Your task to perform on an android device: see tabs open on other devices in the chrome app Image 0: 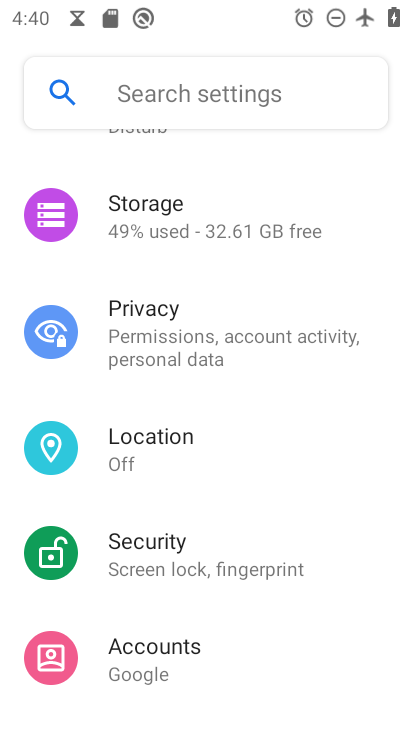
Step 0: drag from (328, 575) to (327, 421)
Your task to perform on an android device: see tabs open on other devices in the chrome app Image 1: 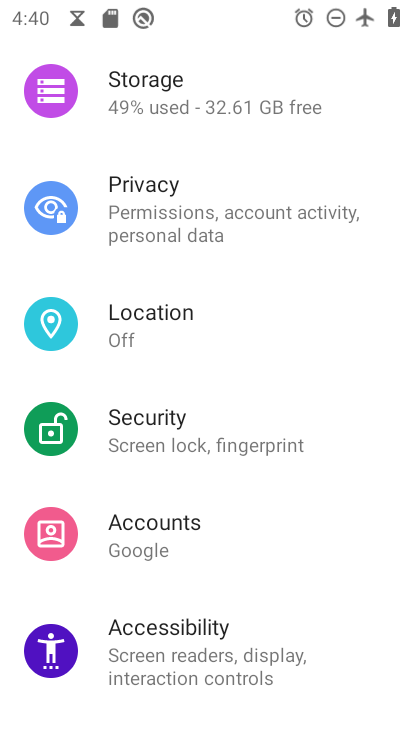
Step 1: press home button
Your task to perform on an android device: see tabs open on other devices in the chrome app Image 2: 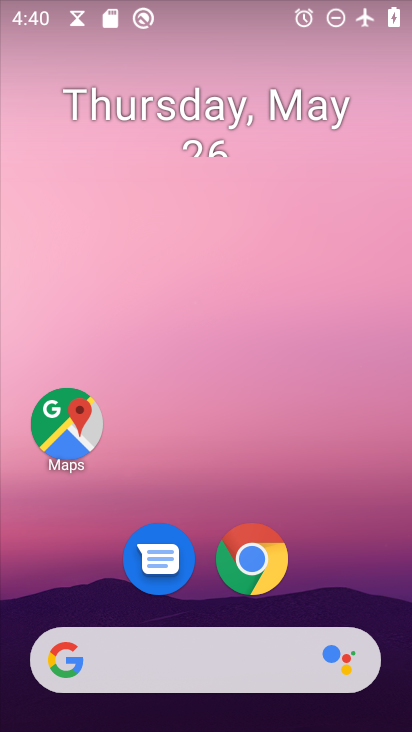
Step 2: click (252, 564)
Your task to perform on an android device: see tabs open on other devices in the chrome app Image 3: 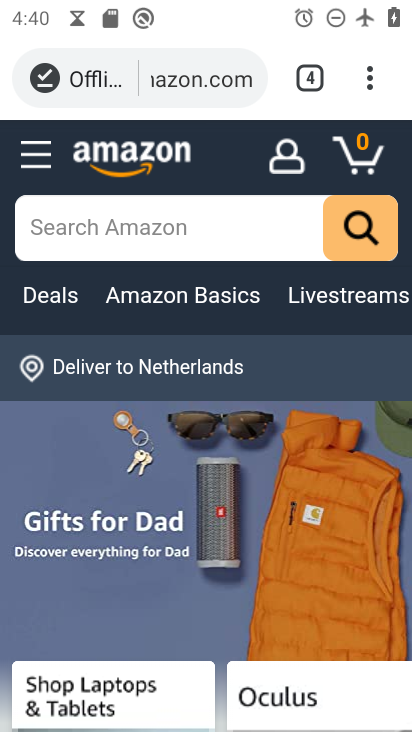
Step 3: click (363, 84)
Your task to perform on an android device: see tabs open on other devices in the chrome app Image 4: 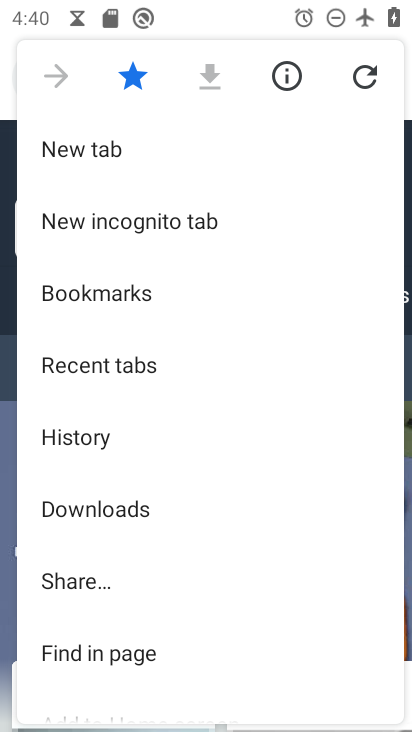
Step 4: click (220, 207)
Your task to perform on an android device: see tabs open on other devices in the chrome app Image 5: 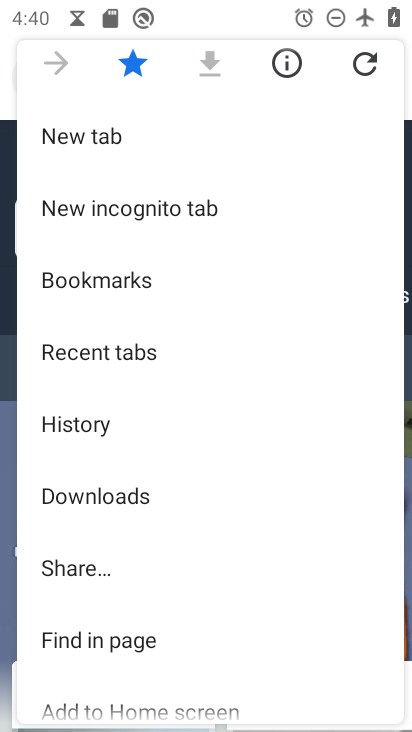
Step 5: click (146, 366)
Your task to perform on an android device: see tabs open on other devices in the chrome app Image 6: 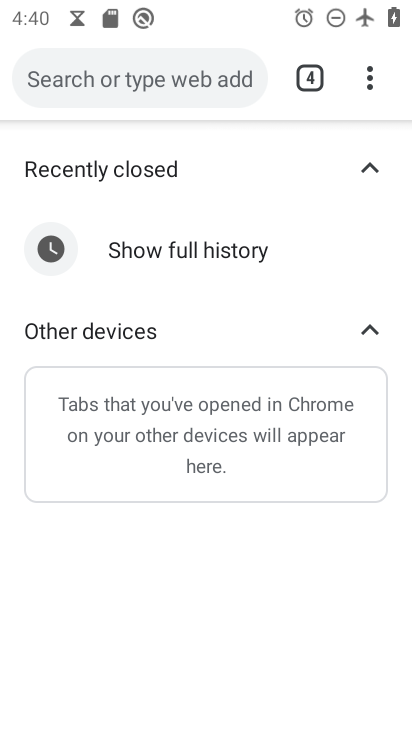
Step 6: task complete